Your task to perform on an android device: Open Wikipedia Image 0: 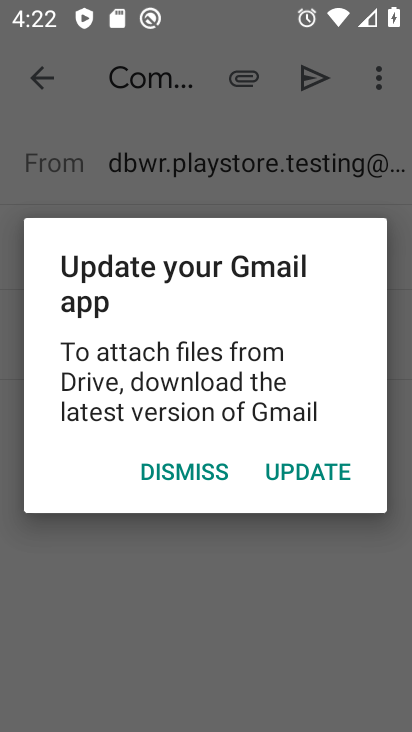
Step 0: press home button
Your task to perform on an android device: Open Wikipedia Image 1: 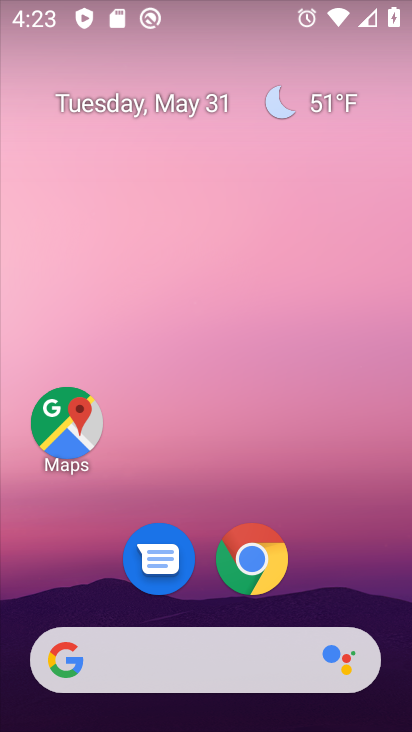
Step 1: click (242, 567)
Your task to perform on an android device: Open Wikipedia Image 2: 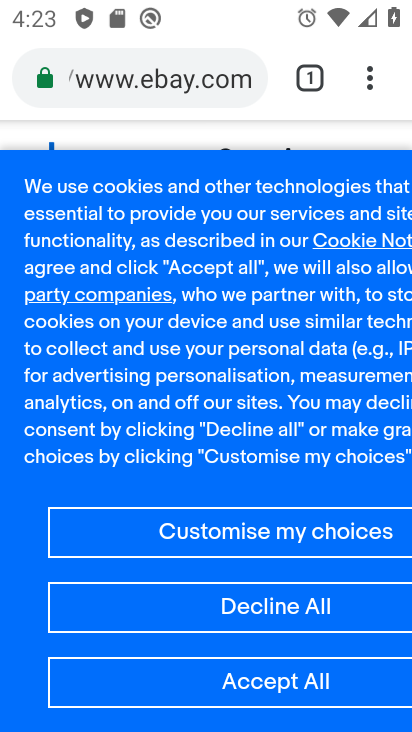
Step 2: click (169, 63)
Your task to perform on an android device: Open Wikipedia Image 3: 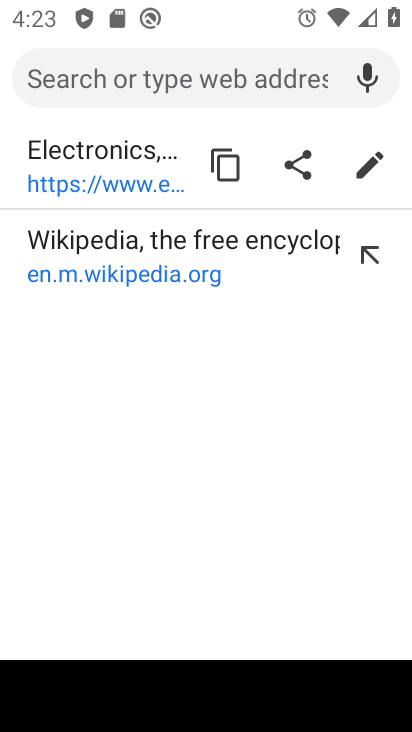
Step 3: type "wikipedia"
Your task to perform on an android device: Open Wikipedia Image 4: 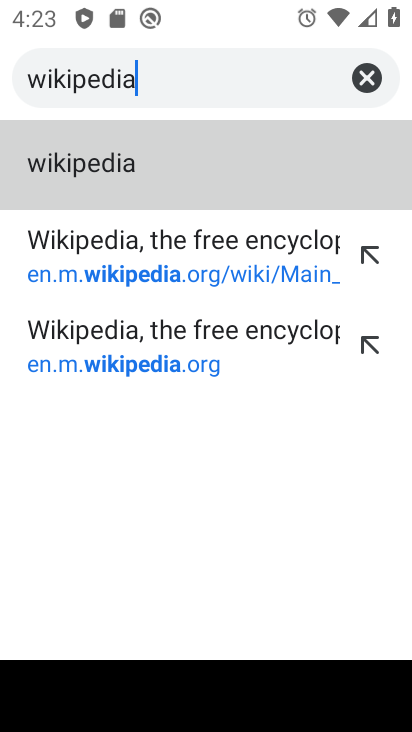
Step 4: click (94, 163)
Your task to perform on an android device: Open Wikipedia Image 5: 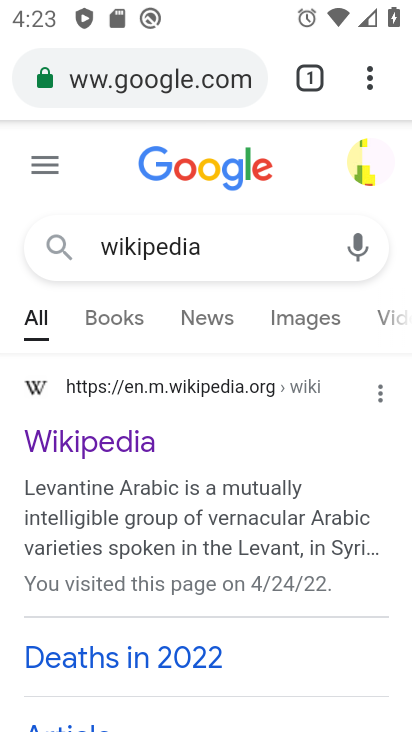
Step 5: click (115, 441)
Your task to perform on an android device: Open Wikipedia Image 6: 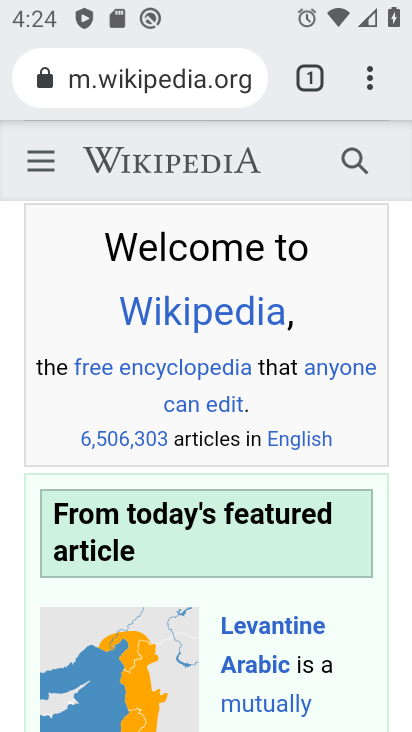
Step 6: task complete